Your task to perform on an android device: turn off location history Image 0: 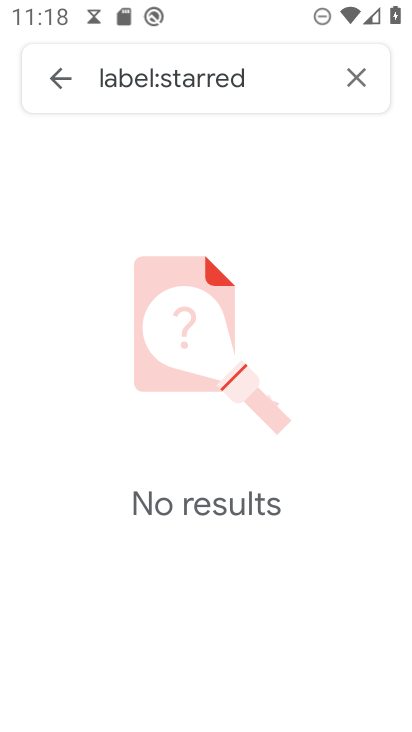
Step 0: press home button
Your task to perform on an android device: turn off location history Image 1: 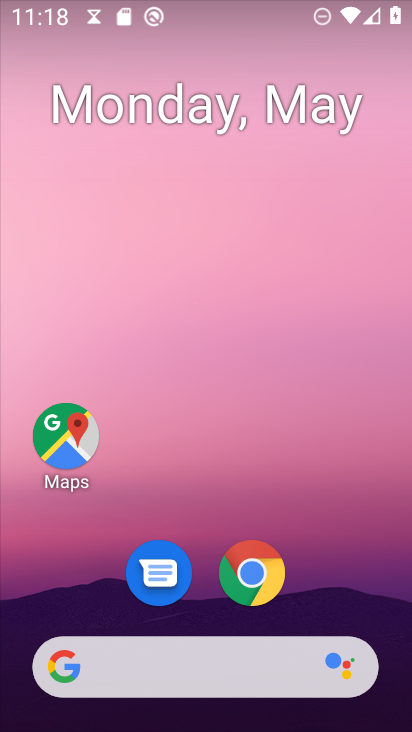
Step 1: drag from (341, 560) to (232, 117)
Your task to perform on an android device: turn off location history Image 2: 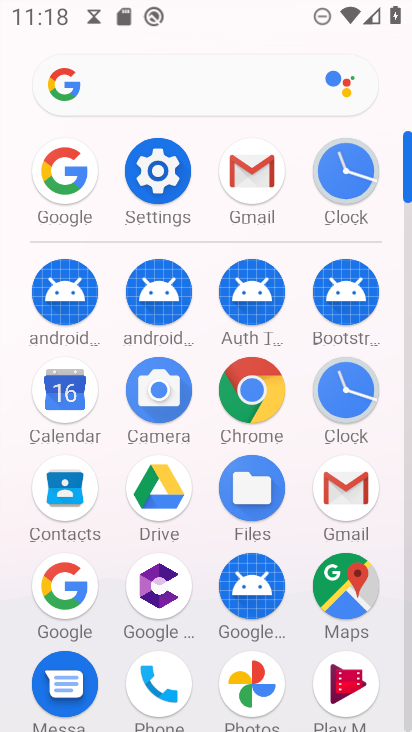
Step 2: click (145, 176)
Your task to perform on an android device: turn off location history Image 3: 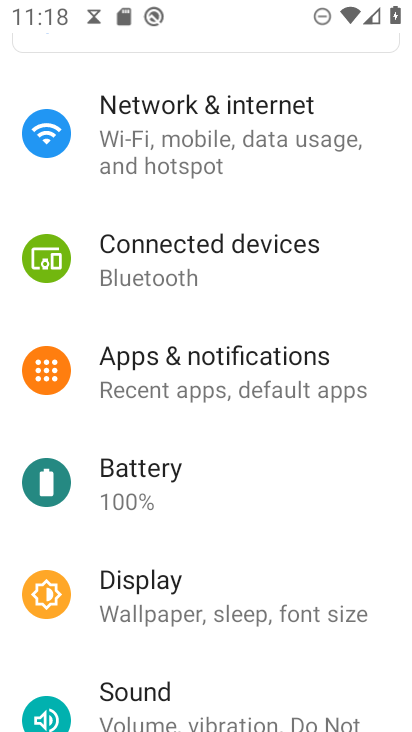
Step 3: drag from (236, 640) to (208, 110)
Your task to perform on an android device: turn off location history Image 4: 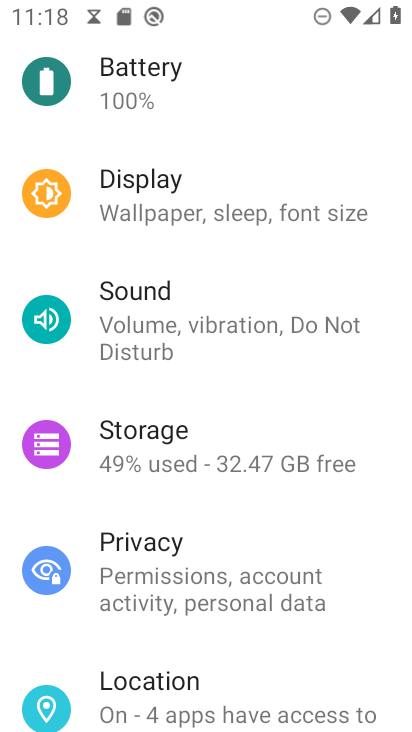
Step 4: click (237, 695)
Your task to perform on an android device: turn off location history Image 5: 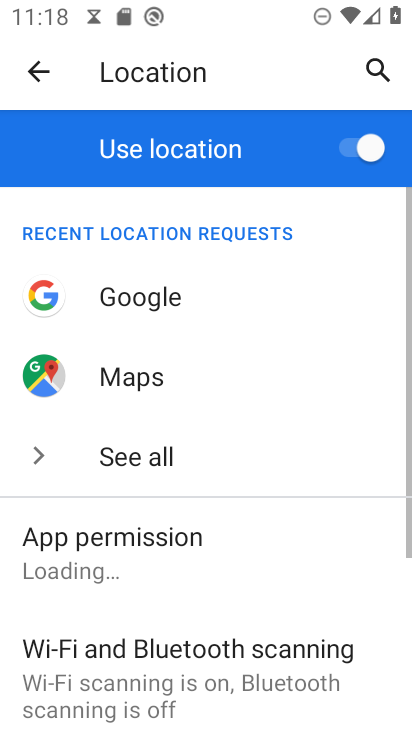
Step 5: drag from (237, 566) to (226, 157)
Your task to perform on an android device: turn off location history Image 6: 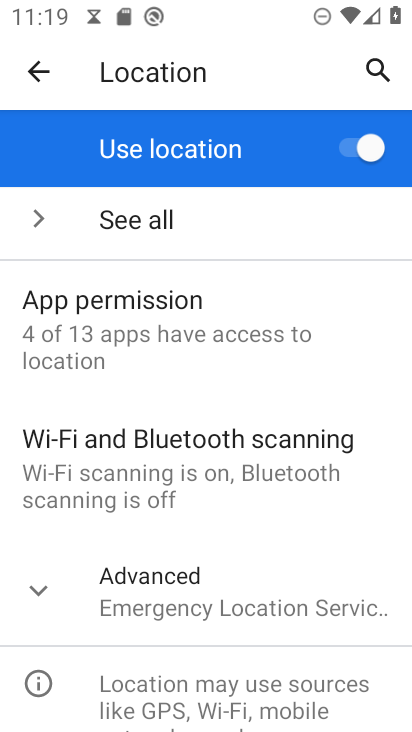
Step 6: drag from (223, 631) to (232, 331)
Your task to perform on an android device: turn off location history Image 7: 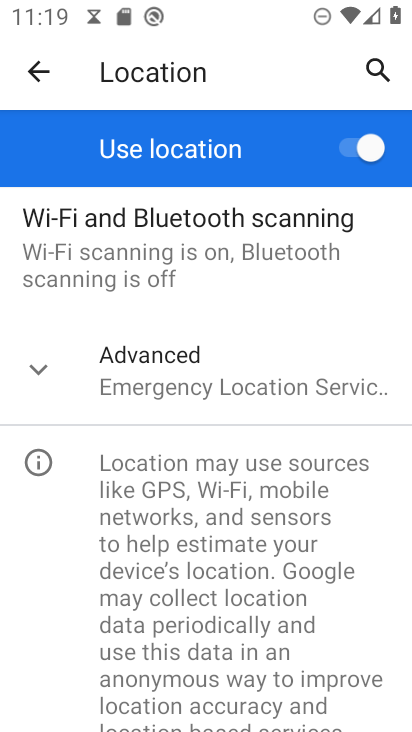
Step 7: click (206, 387)
Your task to perform on an android device: turn off location history Image 8: 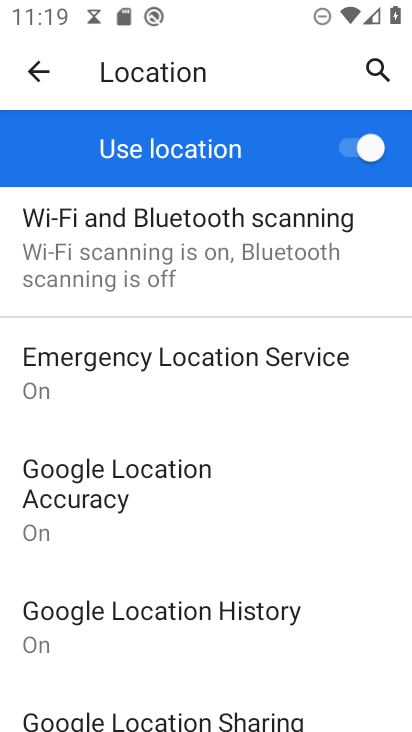
Step 8: click (215, 619)
Your task to perform on an android device: turn off location history Image 9: 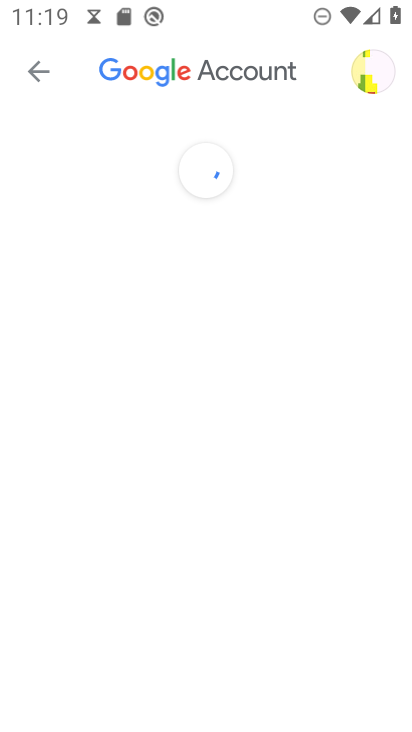
Step 9: task complete